Your task to perform on an android device: make emails show in primary in the gmail app Image 0: 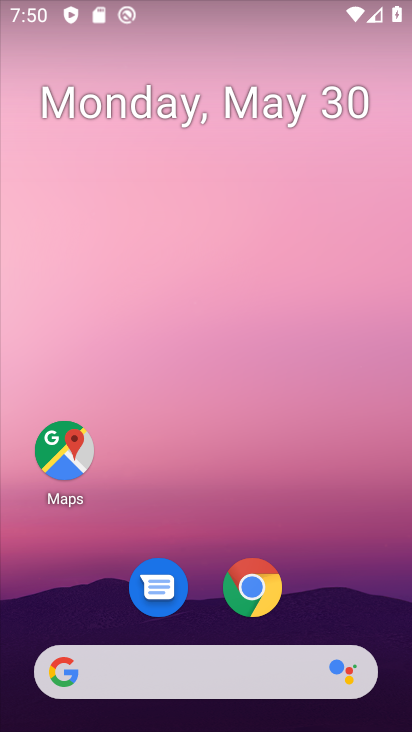
Step 0: drag from (189, 620) to (305, 123)
Your task to perform on an android device: make emails show in primary in the gmail app Image 1: 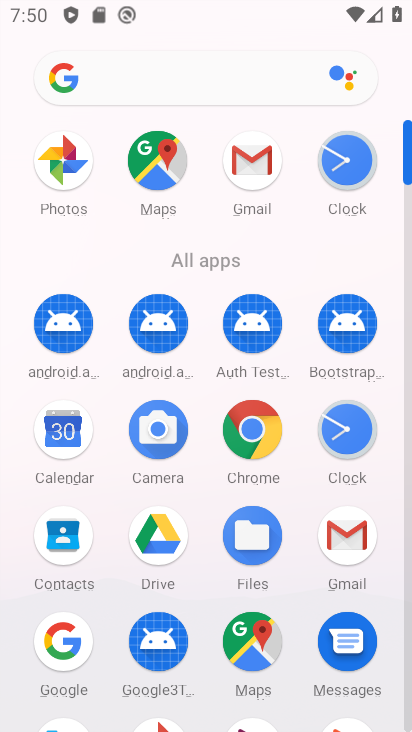
Step 1: click (249, 171)
Your task to perform on an android device: make emails show in primary in the gmail app Image 2: 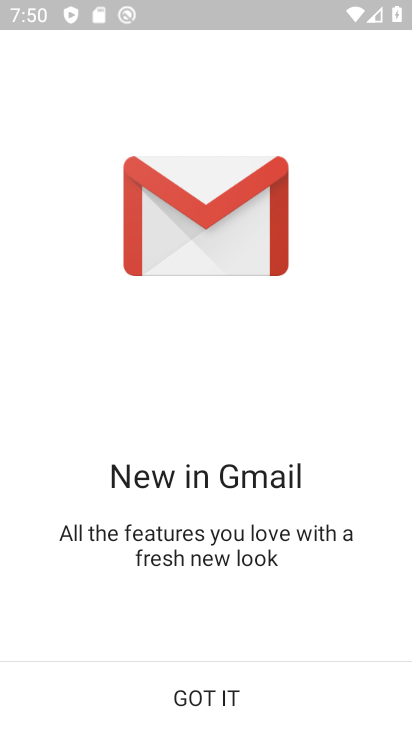
Step 2: click (231, 690)
Your task to perform on an android device: make emails show in primary in the gmail app Image 3: 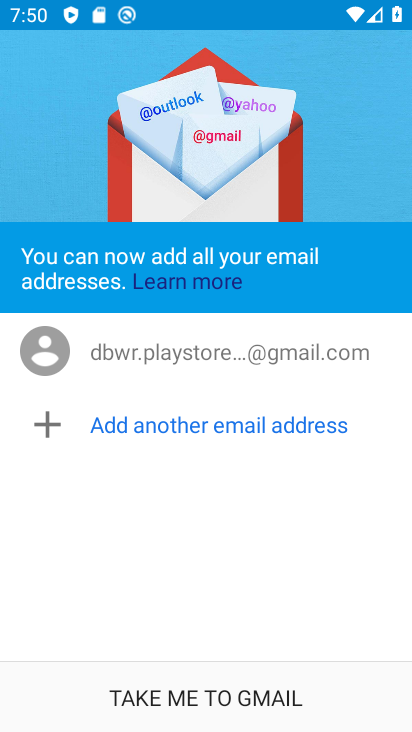
Step 3: click (231, 690)
Your task to perform on an android device: make emails show in primary in the gmail app Image 4: 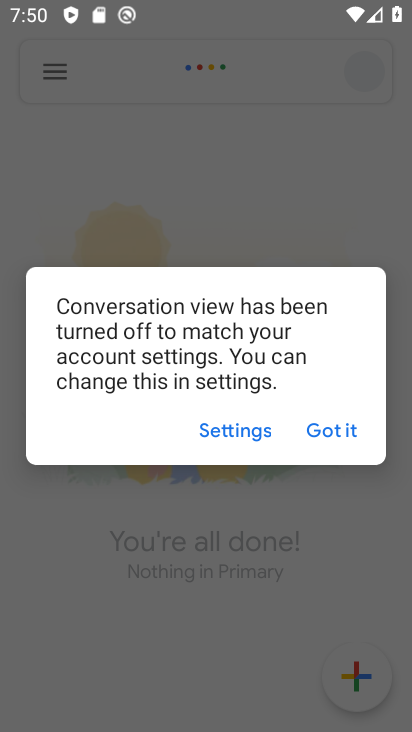
Step 4: click (339, 435)
Your task to perform on an android device: make emails show in primary in the gmail app Image 5: 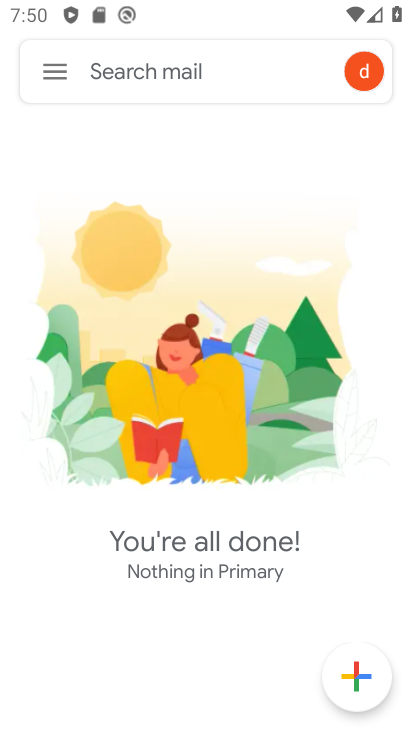
Step 5: click (53, 76)
Your task to perform on an android device: make emails show in primary in the gmail app Image 6: 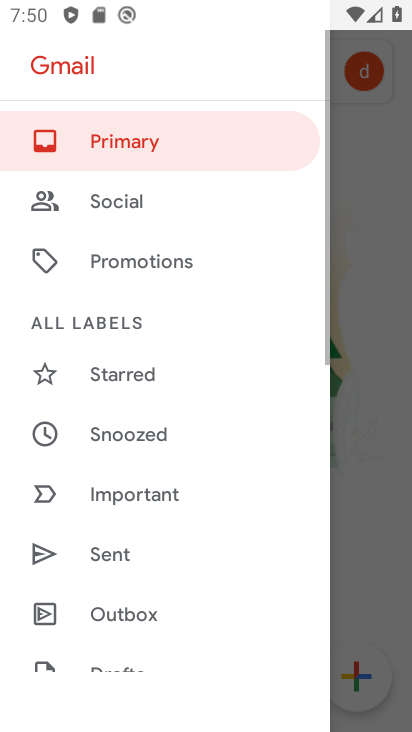
Step 6: drag from (195, 594) to (240, 98)
Your task to perform on an android device: make emails show in primary in the gmail app Image 7: 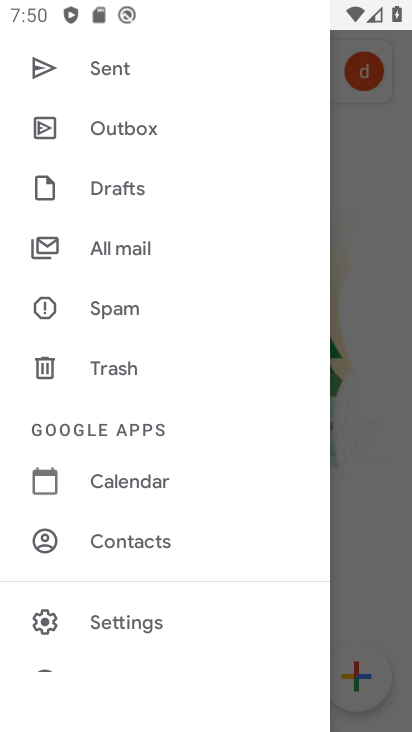
Step 7: click (133, 622)
Your task to perform on an android device: make emails show in primary in the gmail app Image 8: 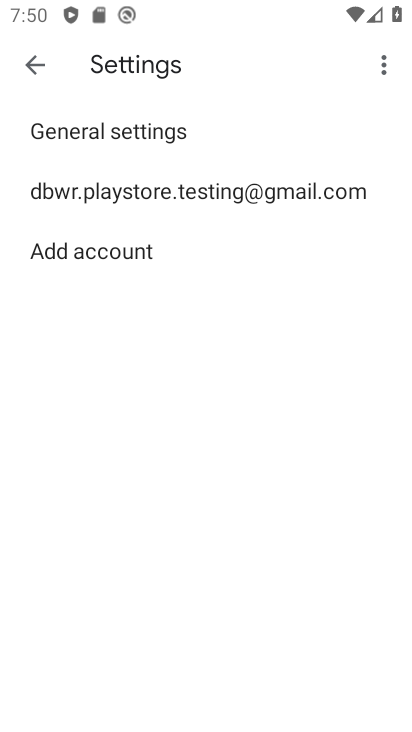
Step 8: click (259, 190)
Your task to perform on an android device: make emails show in primary in the gmail app Image 9: 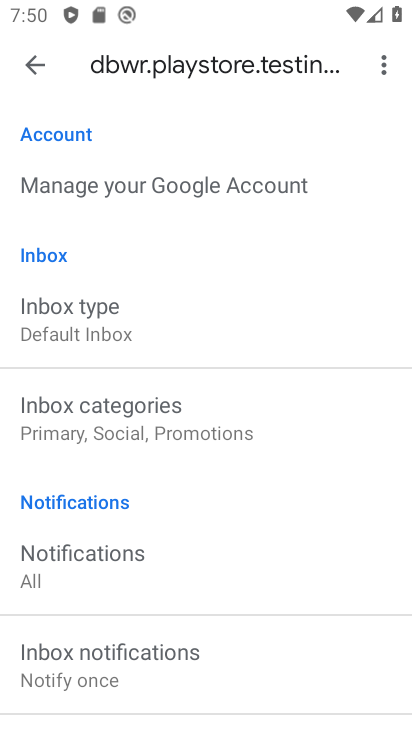
Step 9: click (170, 427)
Your task to perform on an android device: make emails show in primary in the gmail app Image 10: 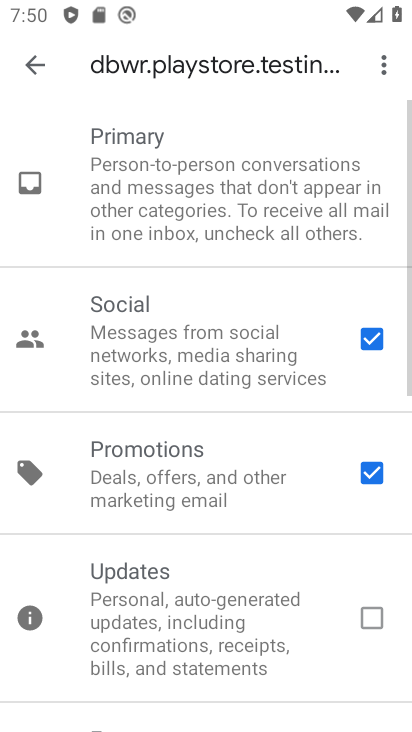
Step 10: click (374, 328)
Your task to perform on an android device: make emails show in primary in the gmail app Image 11: 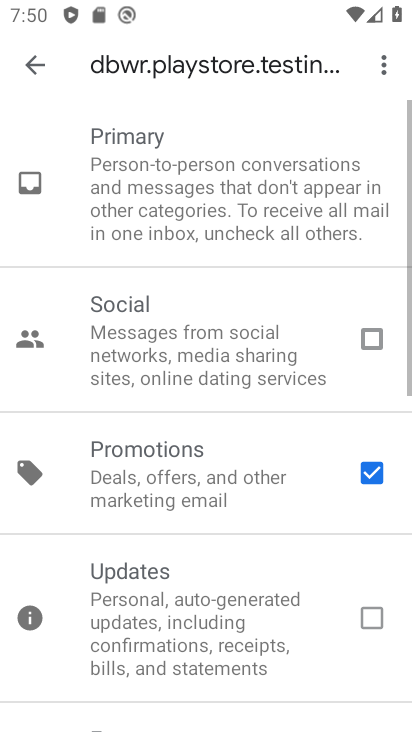
Step 11: click (372, 467)
Your task to perform on an android device: make emails show in primary in the gmail app Image 12: 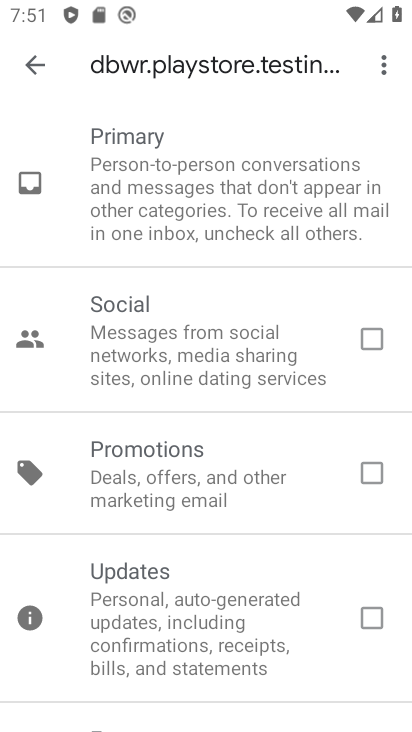
Step 12: click (41, 61)
Your task to perform on an android device: make emails show in primary in the gmail app Image 13: 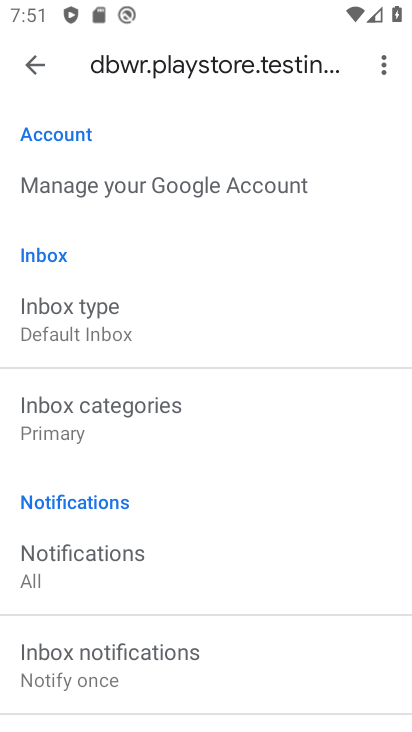
Step 13: task complete